Your task to perform on an android device: check google app version Image 0: 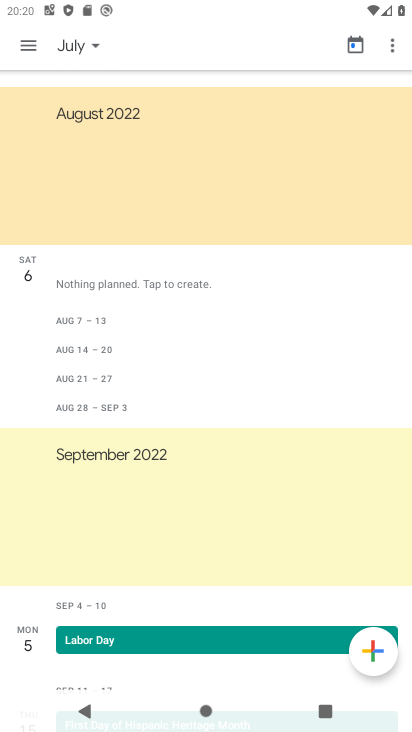
Step 0: drag from (228, 583) to (227, 399)
Your task to perform on an android device: check google app version Image 1: 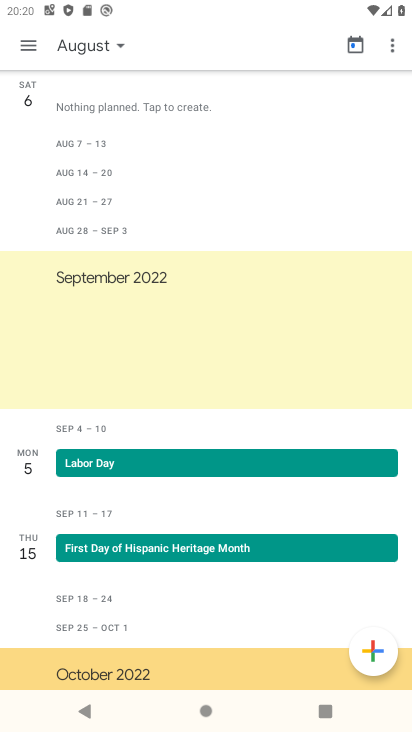
Step 1: drag from (320, 653) to (285, 306)
Your task to perform on an android device: check google app version Image 2: 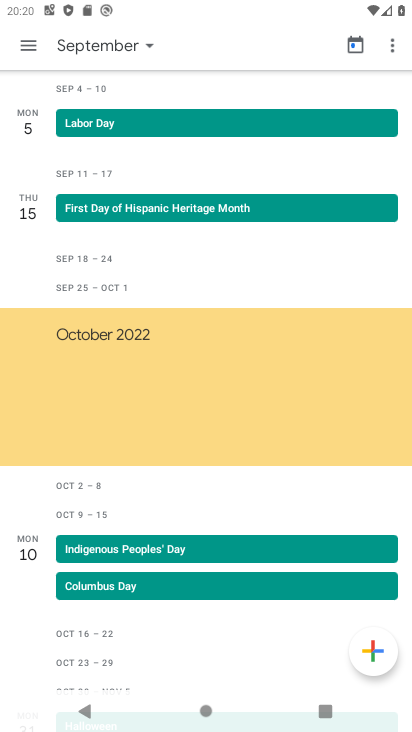
Step 2: press home button
Your task to perform on an android device: check google app version Image 3: 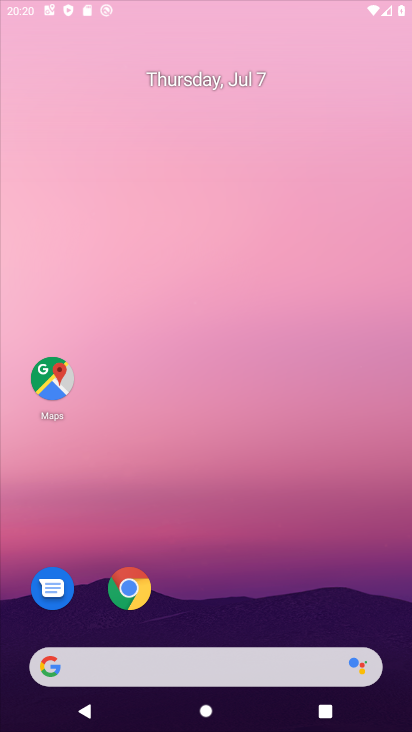
Step 3: drag from (203, 646) to (248, 340)
Your task to perform on an android device: check google app version Image 4: 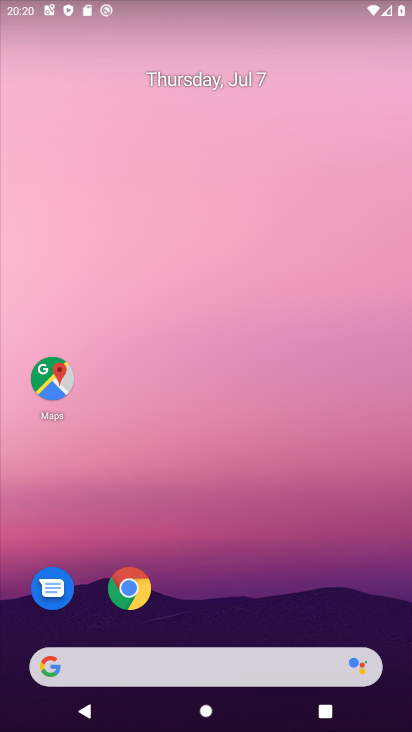
Step 4: drag from (170, 647) to (191, 41)
Your task to perform on an android device: check google app version Image 5: 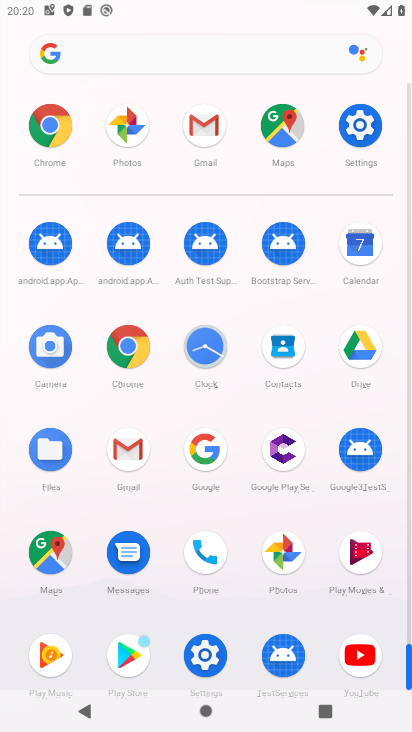
Step 5: click (360, 136)
Your task to perform on an android device: check google app version Image 6: 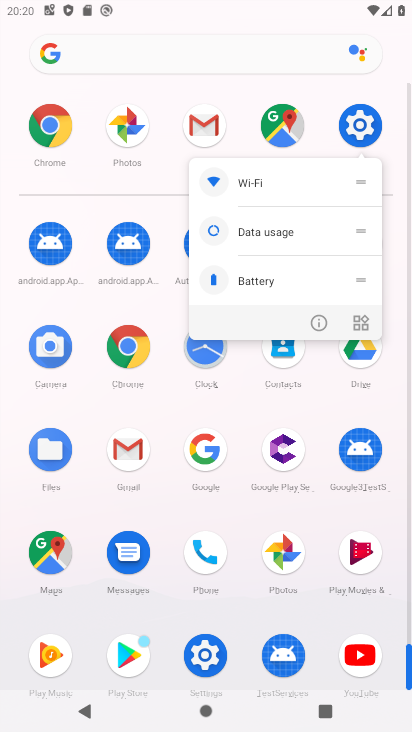
Step 6: click (319, 327)
Your task to perform on an android device: check google app version Image 7: 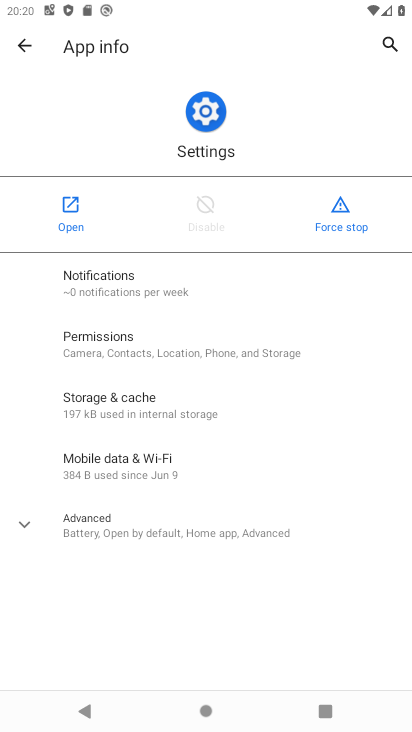
Step 7: click (68, 217)
Your task to perform on an android device: check google app version Image 8: 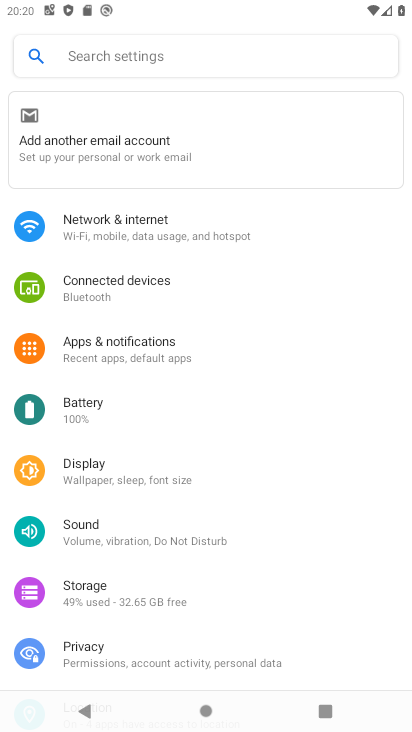
Step 8: press home button
Your task to perform on an android device: check google app version Image 9: 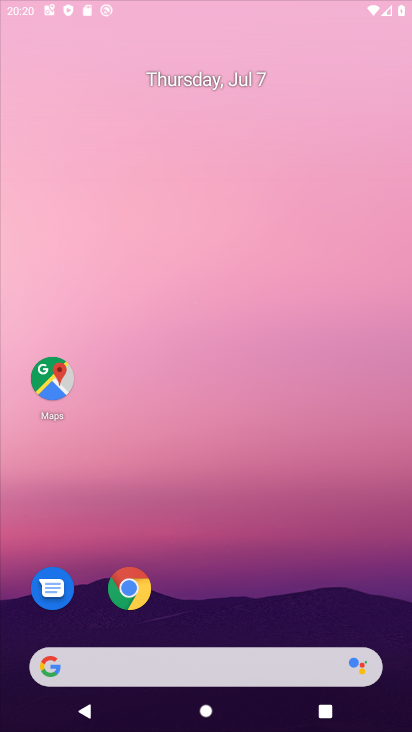
Step 9: drag from (161, 524) to (171, 152)
Your task to perform on an android device: check google app version Image 10: 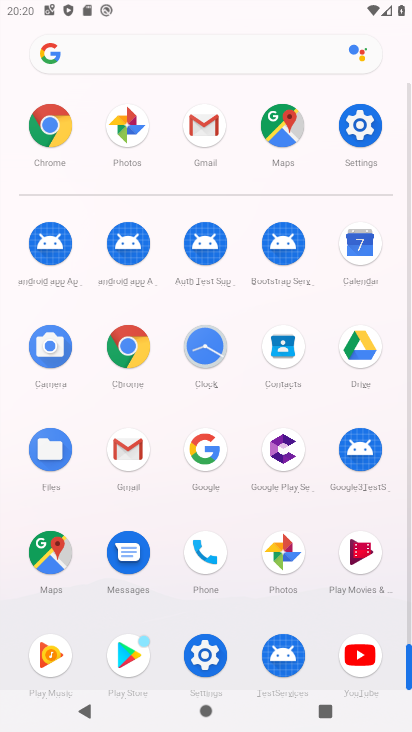
Step 10: click (201, 444)
Your task to perform on an android device: check google app version Image 11: 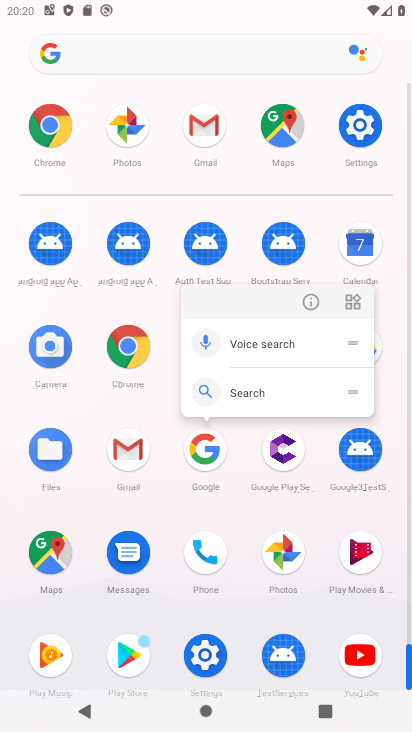
Step 11: click (298, 293)
Your task to perform on an android device: check google app version Image 12: 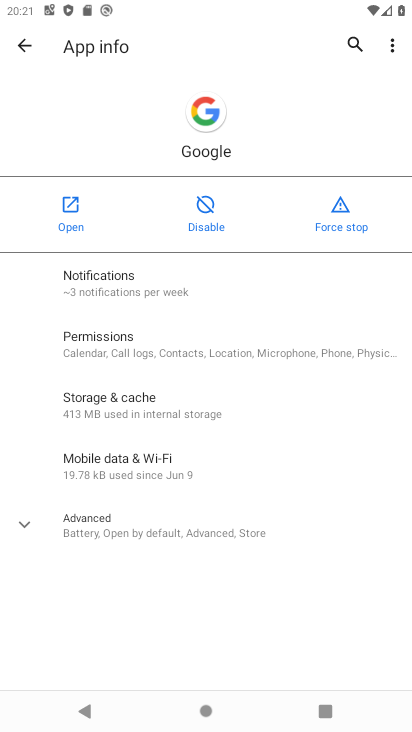
Step 12: click (73, 221)
Your task to perform on an android device: check google app version Image 13: 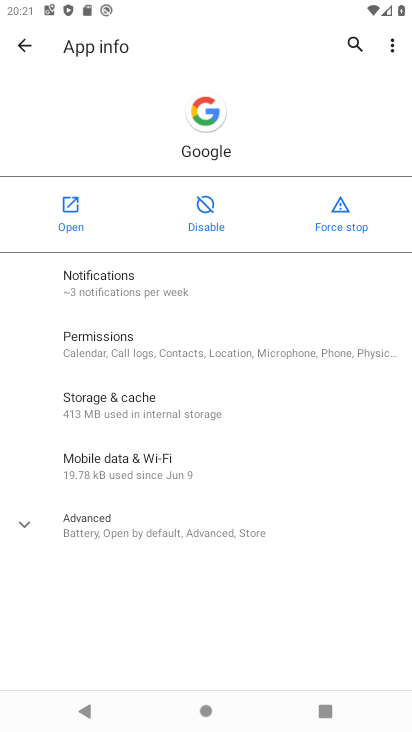
Step 13: click (73, 221)
Your task to perform on an android device: check google app version Image 14: 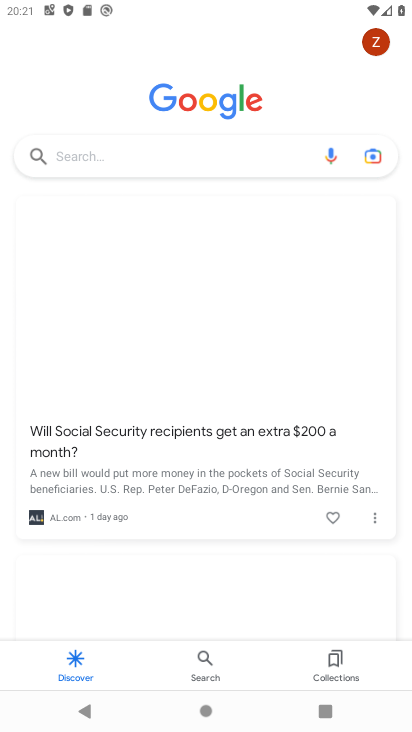
Step 14: drag from (267, 395) to (316, 270)
Your task to perform on an android device: check google app version Image 15: 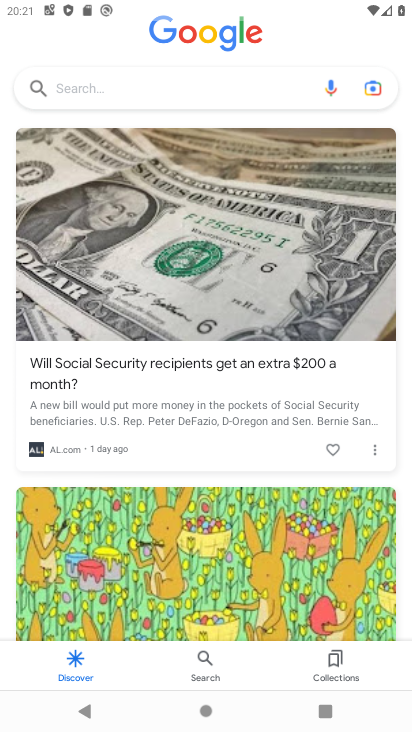
Step 15: drag from (342, 96) to (411, 104)
Your task to perform on an android device: check google app version Image 16: 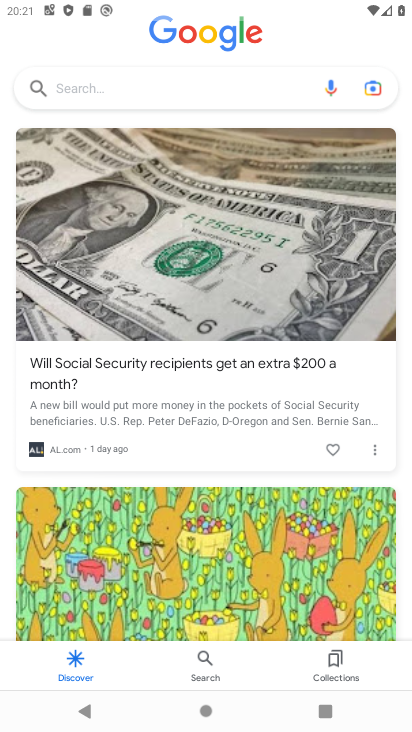
Step 16: drag from (186, 152) to (212, 559)
Your task to perform on an android device: check google app version Image 17: 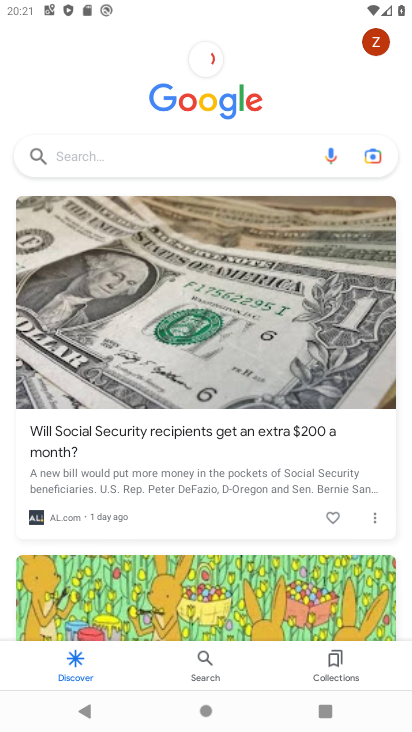
Step 17: click (372, 41)
Your task to perform on an android device: check google app version Image 18: 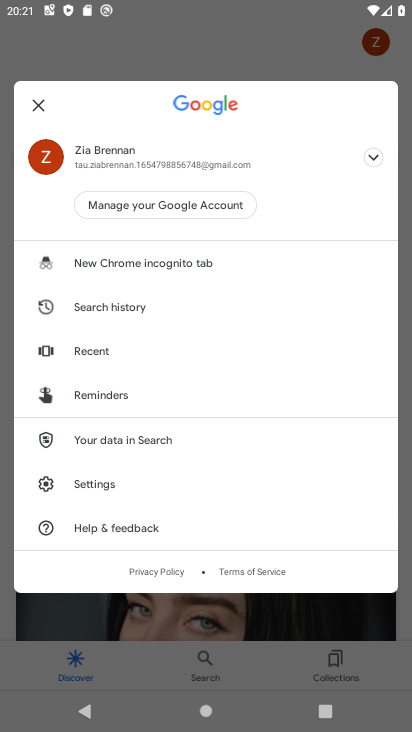
Step 18: click (89, 482)
Your task to perform on an android device: check google app version Image 19: 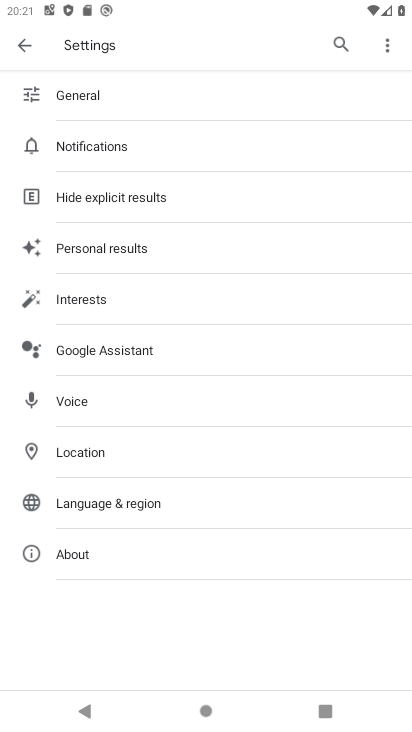
Step 19: click (87, 555)
Your task to perform on an android device: check google app version Image 20: 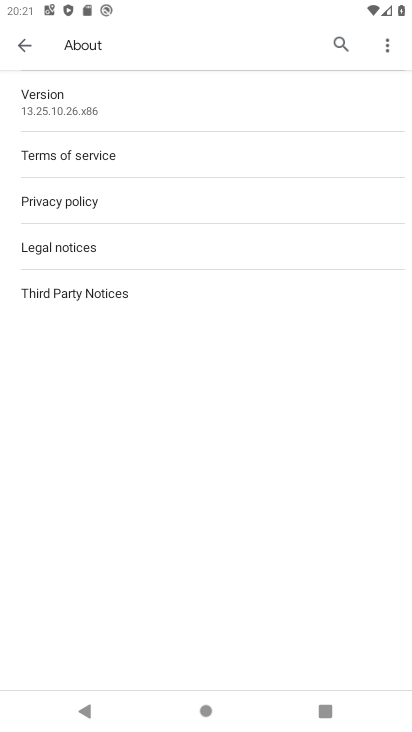
Step 20: click (103, 107)
Your task to perform on an android device: check google app version Image 21: 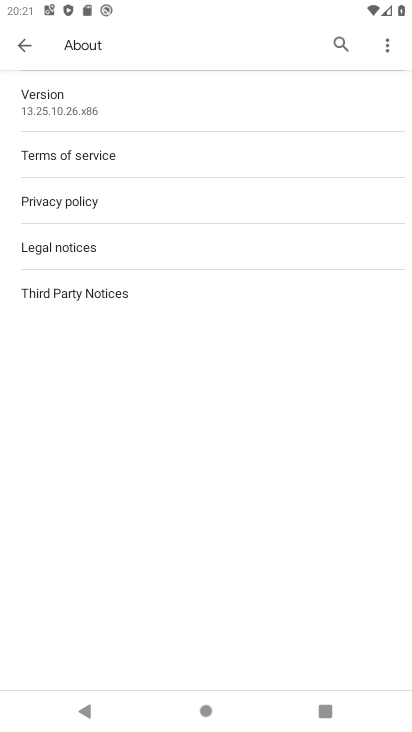
Step 21: click (82, 102)
Your task to perform on an android device: check google app version Image 22: 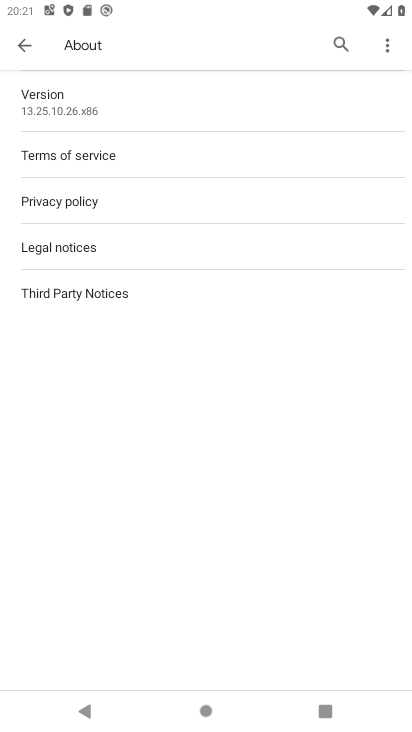
Step 22: task complete